Your task to perform on an android device: Go to battery settings Image 0: 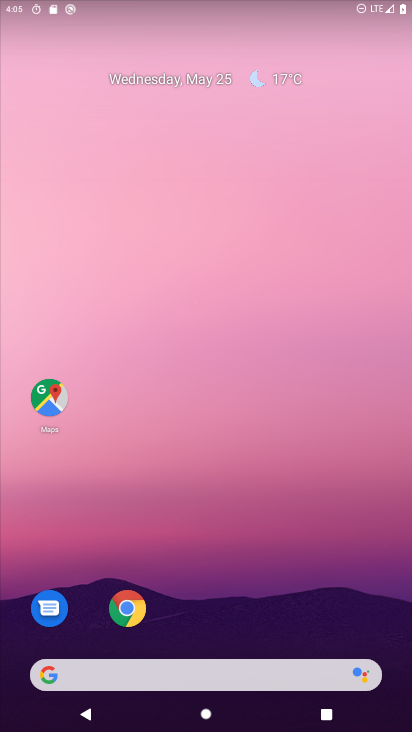
Step 0: drag from (223, 549) to (232, 98)
Your task to perform on an android device: Go to battery settings Image 1: 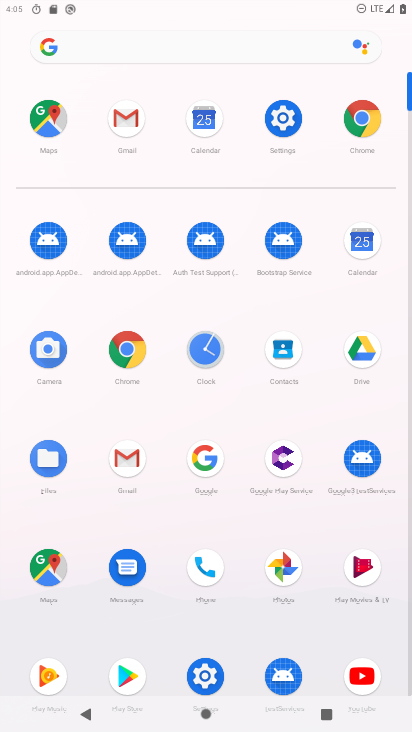
Step 1: click (285, 129)
Your task to perform on an android device: Go to battery settings Image 2: 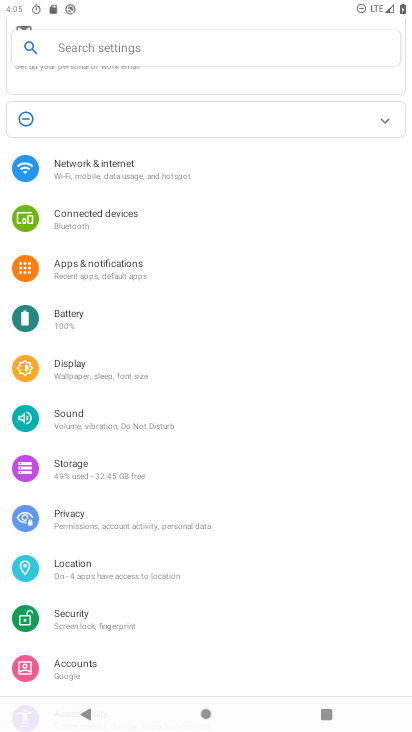
Step 2: click (107, 317)
Your task to perform on an android device: Go to battery settings Image 3: 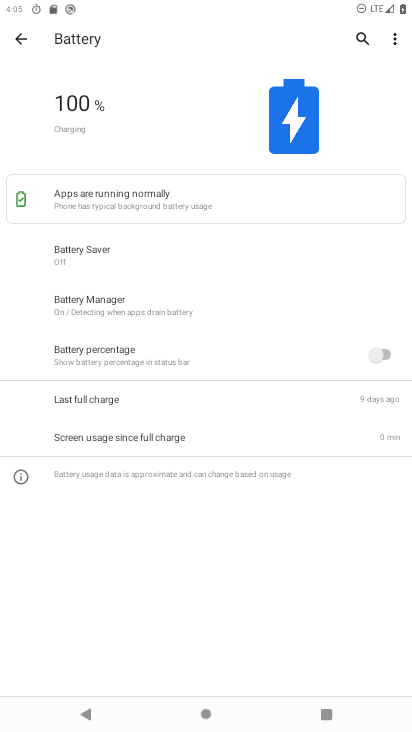
Step 3: task complete